Your task to perform on an android device: Search for Italian restaurants on Maps Image 0: 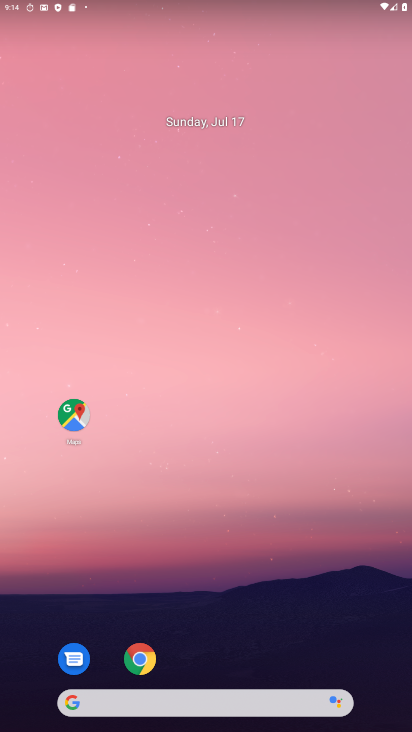
Step 0: drag from (253, 654) to (227, 479)
Your task to perform on an android device: Search for Italian restaurants on Maps Image 1: 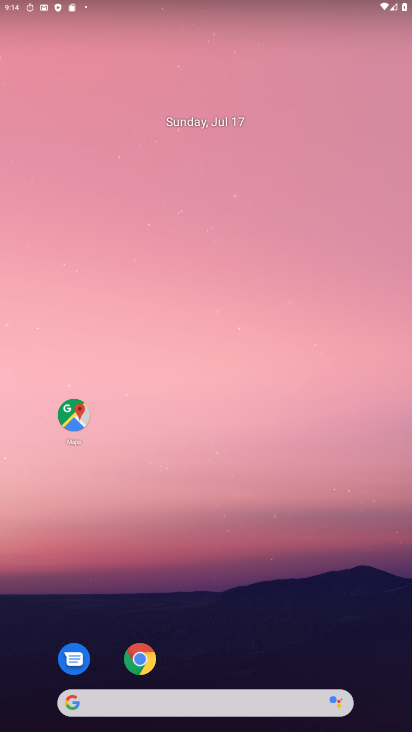
Step 1: drag from (234, 654) to (215, 256)
Your task to perform on an android device: Search for Italian restaurants on Maps Image 2: 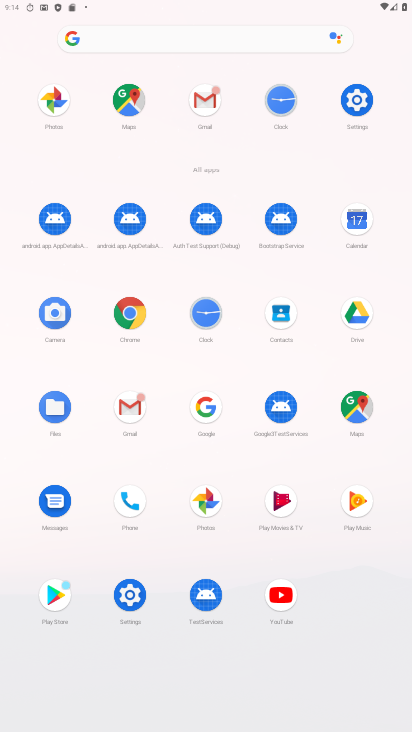
Step 2: click (131, 101)
Your task to perform on an android device: Search for Italian restaurants on Maps Image 3: 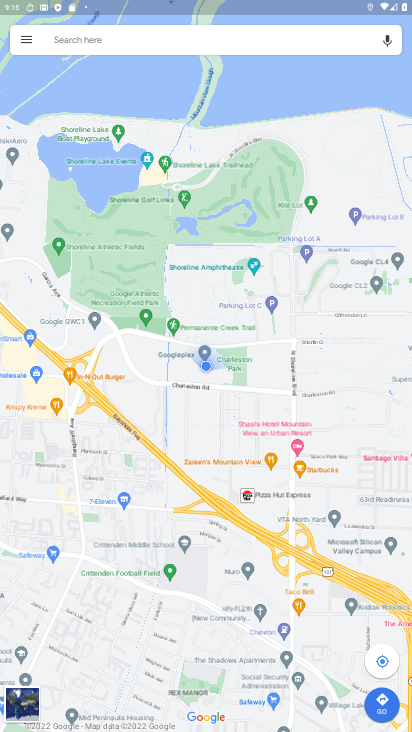
Step 3: click (164, 731)
Your task to perform on an android device: Search for Italian restaurants on Maps Image 4: 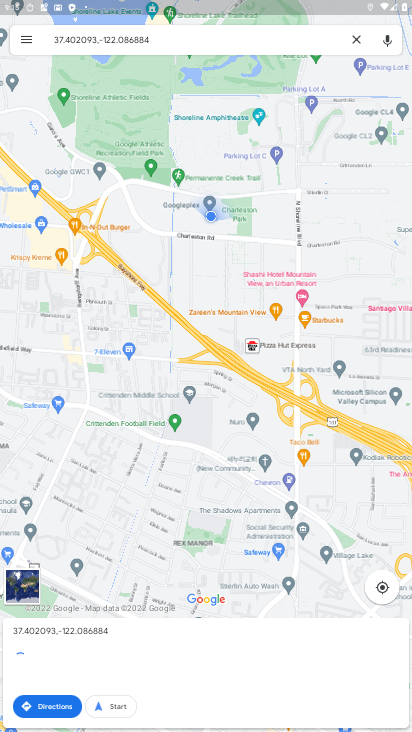
Step 4: click (257, 40)
Your task to perform on an android device: Search for Italian restaurants on Maps Image 5: 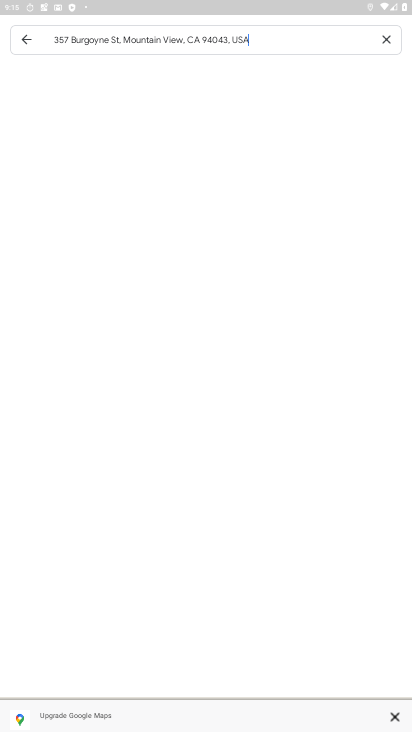
Step 5: click (359, 44)
Your task to perform on an android device: Search for Italian restaurants on Maps Image 6: 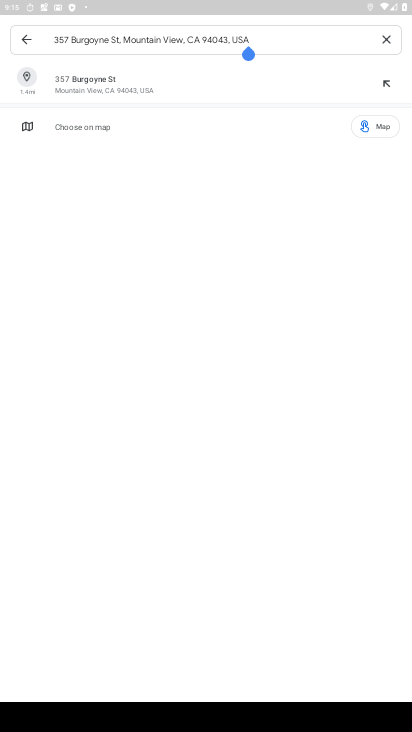
Step 6: click (384, 40)
Your task to perform on an android device: Search for Italian restaurants on Maps Image 7: 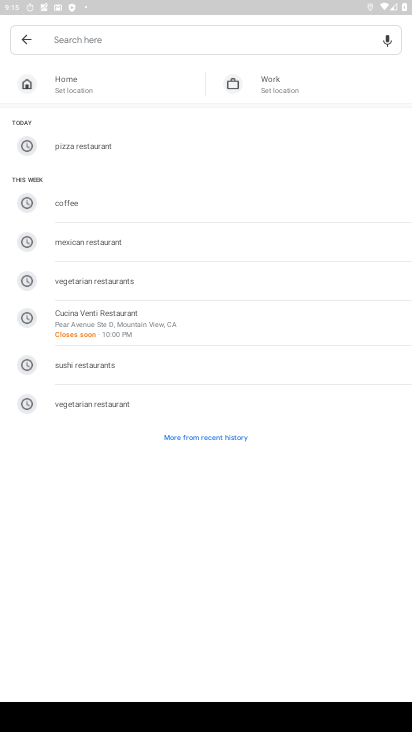
Step 7: type "Italian restaurants"
Your task to perform on an android device: Search for Italian restaurants on Maps Image 8: 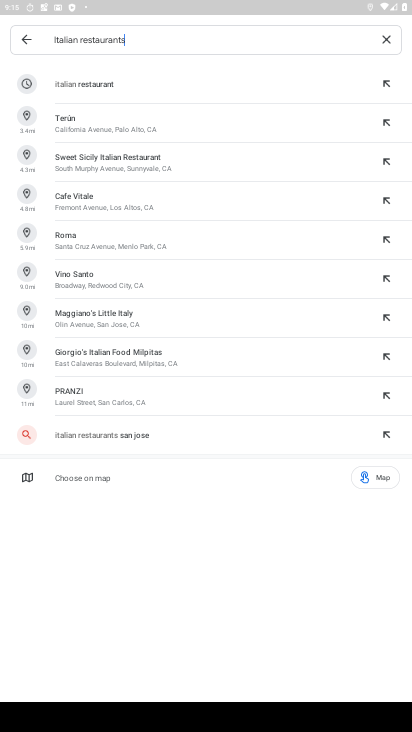
Step 8: click (142, 82)
Your task to perform on an android device: Search for Italian restaurants on Maps Image 9: 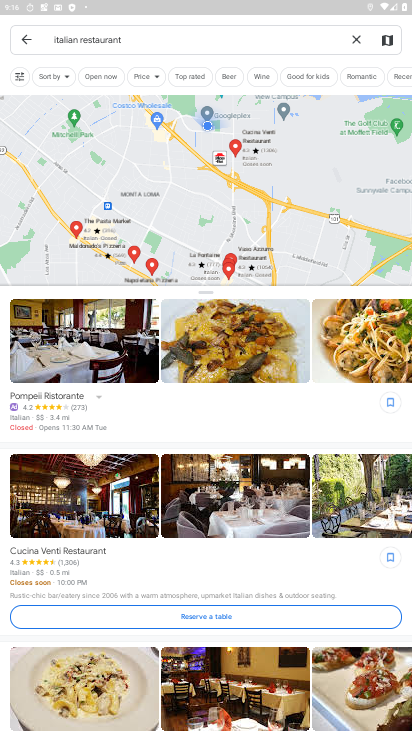
Step 9: task complete